Your task to perform on an android device: Open Google Maps and go to "Timeline" Image 0: 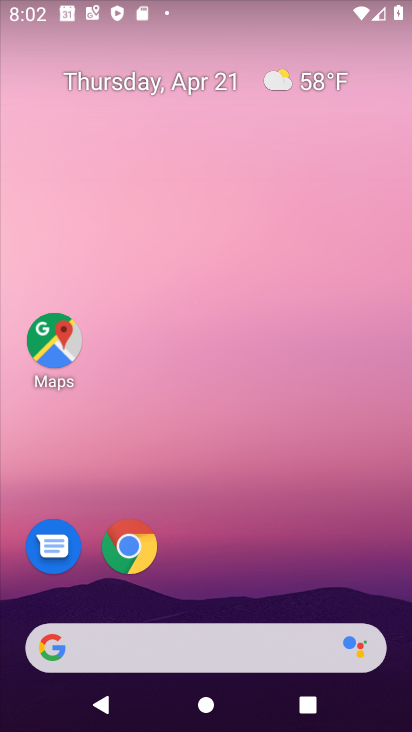
Step 0: drag from (349, 453) to (349, 100)
Your task to perform on an android device: Open Google Maps and go to "Timeline" Image 1: 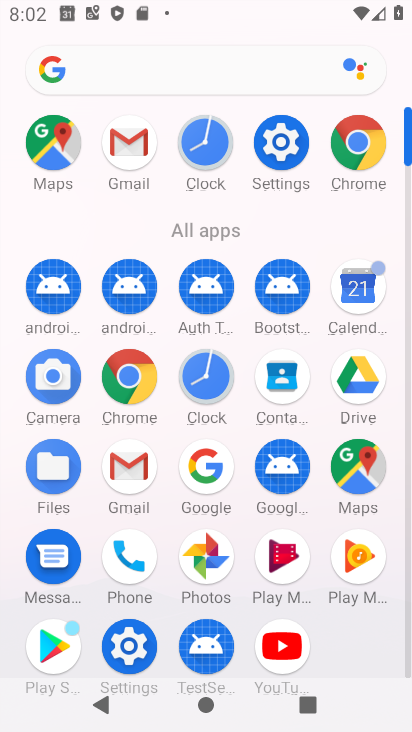
Step 1: click (59, 143)
Your task to perform on an android device: Open Google Maps and go to "Timeline" Image 2: 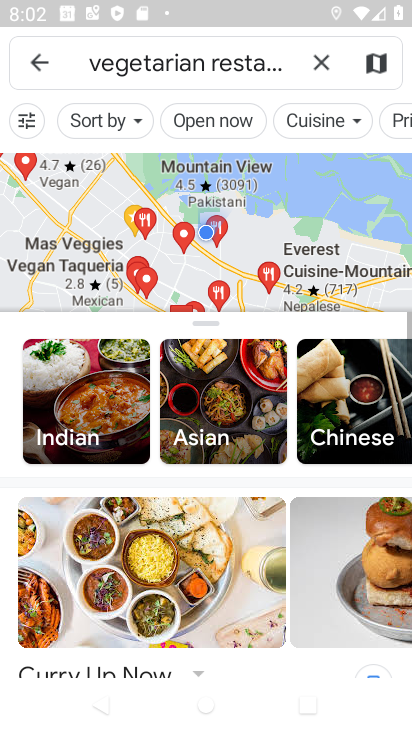
Step 2: click (40, 69)
Your task to perform on an android device: Open Google Maps and go to "Timeline" Image 3: 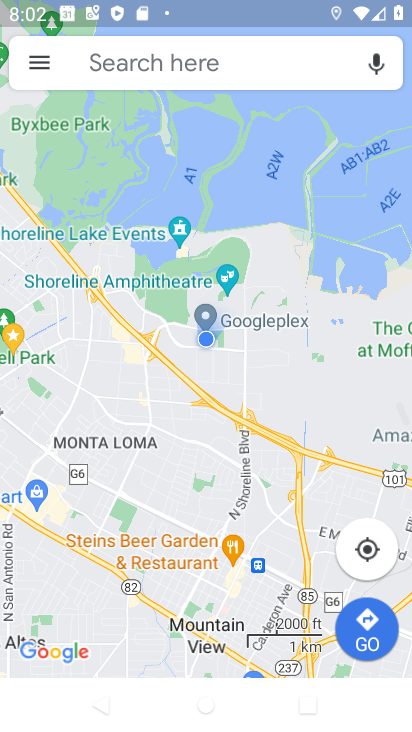
Step 3: click (41, 69)
Your task to perform on an android device: Open Google Maps and go to "Timeline" Image 4: 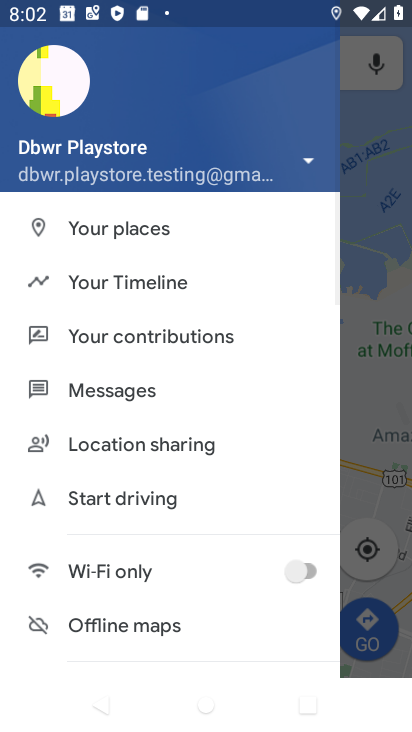
Step 4: click (107, 283)
Your task to perform on an android device: Open Google Maps and go to "Timeline" Image 5: 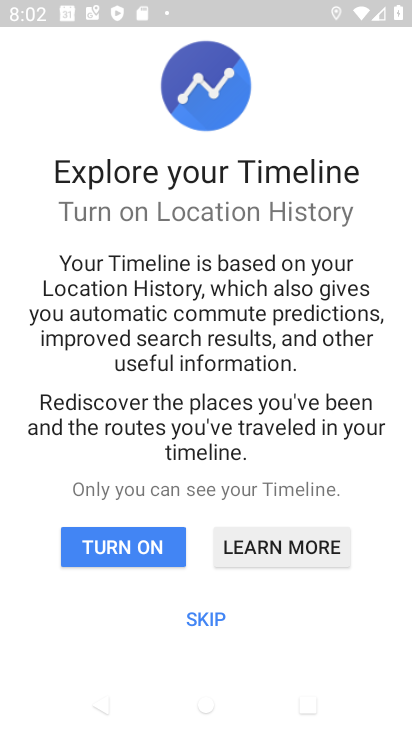
Step 5: task complete